Your task to perform on an android device: turn on data saver in the chrome app Image 0: 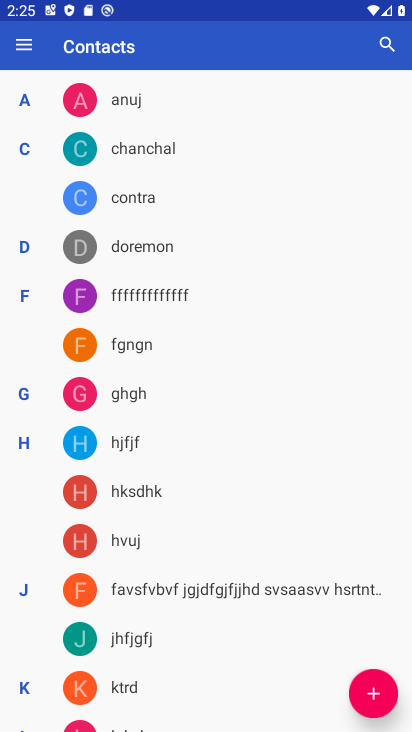
Step 0: press home button
Your task to perform on an android device: turn on data saver in the chrome app Image 1: 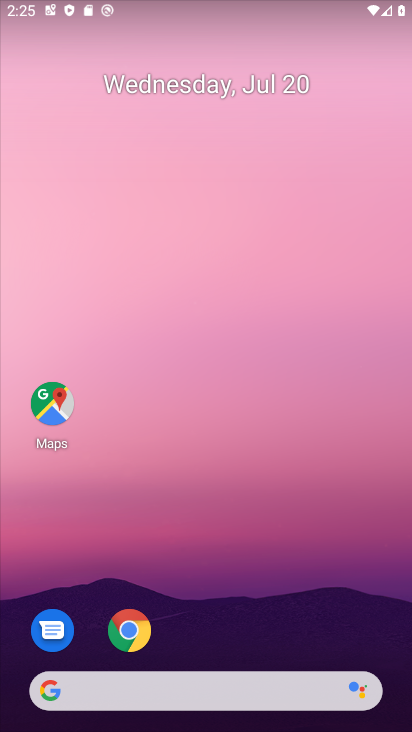
Step 1: drag from (364, 626) to (374, 135)
Your task to perform on an android device: turn on data saver in the chrome app Image 2: 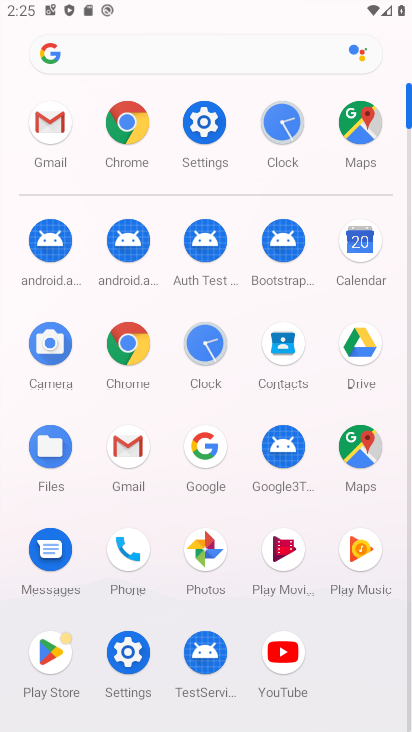
Step 2: click (131, 342)
Your task to perform on an android device: turn on data saver in the chrome app Image 3: 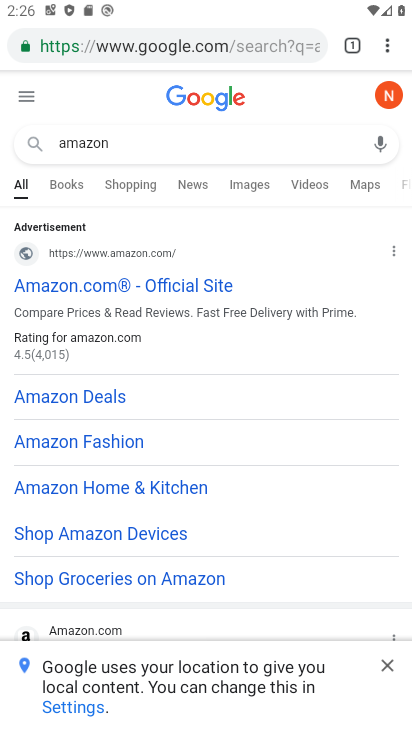
Step 3: click (387, 52)
Your task to perform on an android device: turn on data saver in the chrome app Image 4: 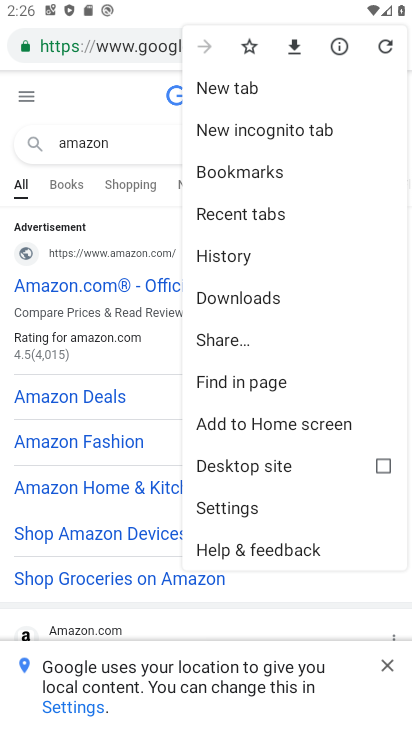
Step 4: click (279, 504)
Your task to perform on an android device: turn on data saver in the chrome app Image 5: 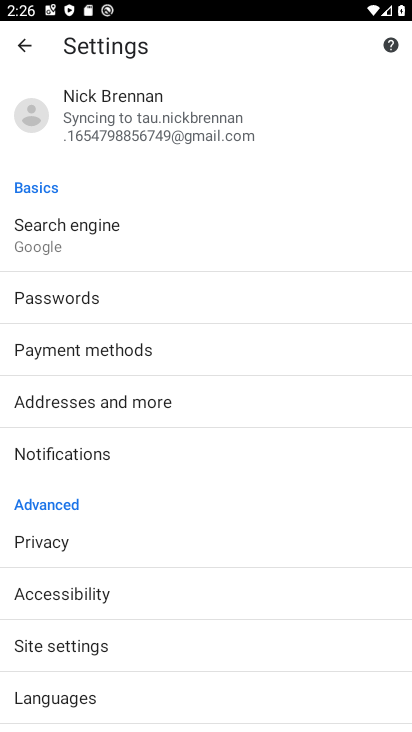
Step 5: drag from (284, 572) to (287, 483)
Your task to perform on an android device: turn on data saver in the chrome app Image 6: 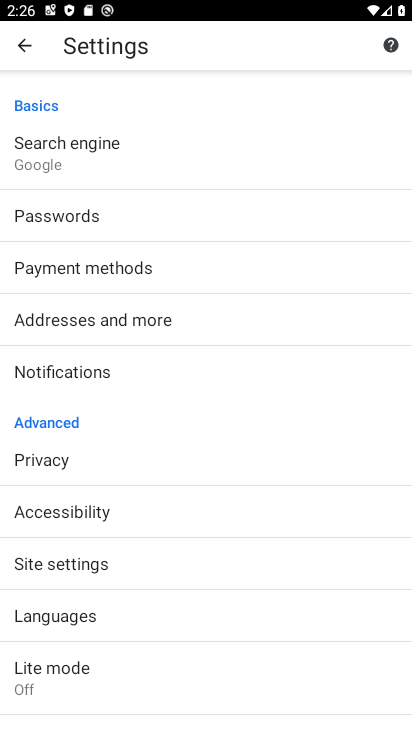
Step 6: drag from (339, 469) to (339, 314)
Your task to perform on an android device: turn on data saver in the chrome app Image 7: 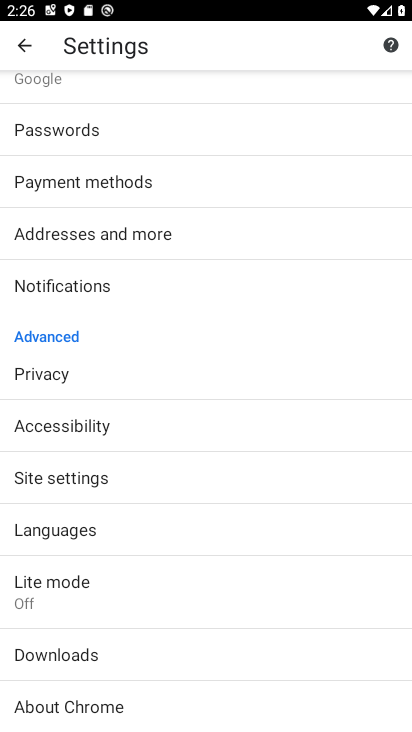
Step 7: drag from (314, 509) to (318, 399)
Your task to perform on an android device: turn on data saver in the chrome app Image 8: 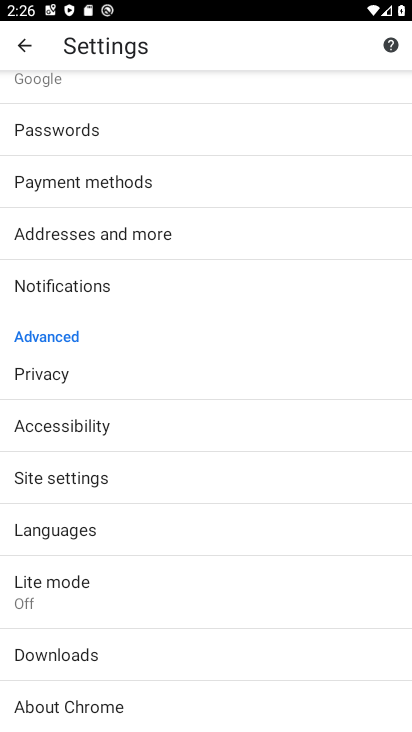
Step 8: click (305, 583)
Your task to perform on an android device: turn on data saver in the chrome app Image 9: 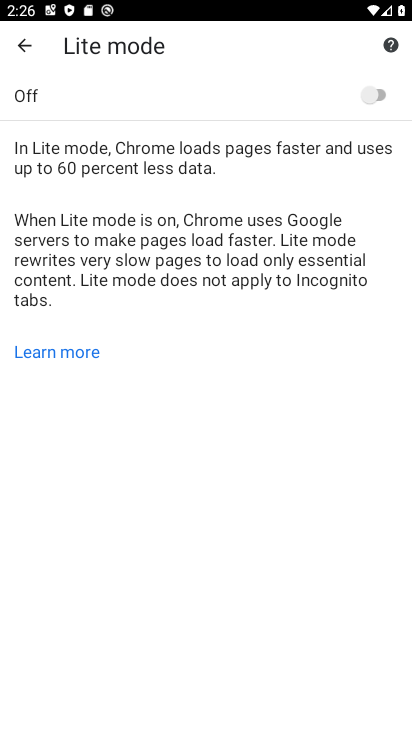
Step 9: click (369, 97)
Your task to perform on an android device: turn on data saver in the chrome app Image 10: 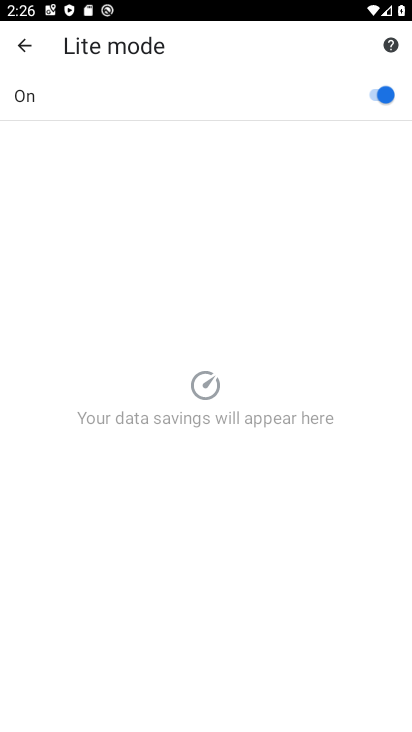
Step 10: task complete